Your task to perform on an android device: turn on the 12-hour format for clock Image 0: 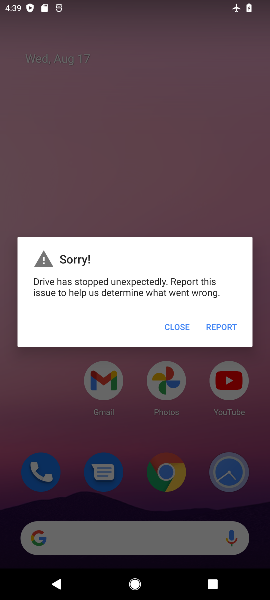
Step 0: click (175, 323)
Your task to perform on an android device: turn on the 12-hour format for clock Image 1: 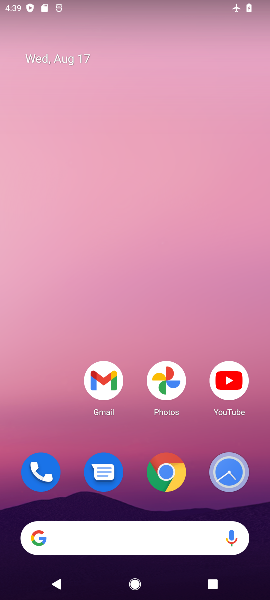
Step 1: click (227, 471)
Your task to perform on an android device: turn on the 12-hour format for clock Image 2: 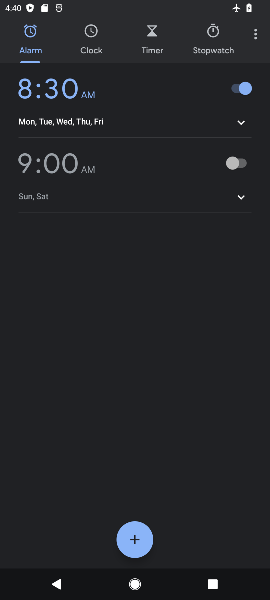
Step 2: click (259, 31)
Your task to perform on an android device: turn on the 12-hour format for clock Image 3: 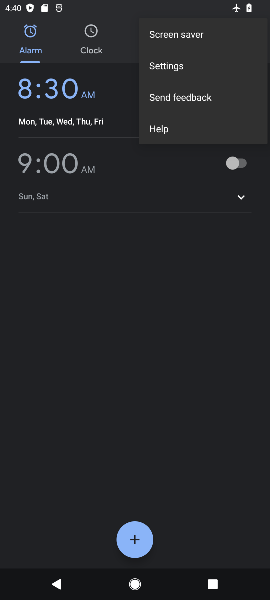
Step 3: click (223, 61)
Your task to perform on an android device: turn on the 12-hour format for clock Image 4: 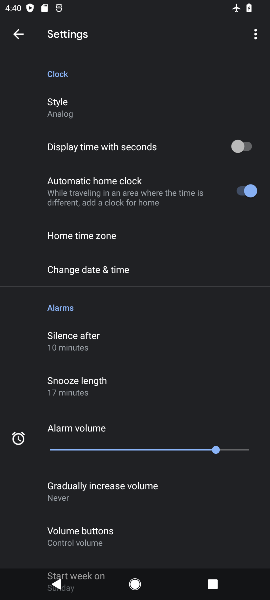
Step 4: click (170, 266)
Your task to perform on an android device: turn on the 12-hour format for clock Image 5: 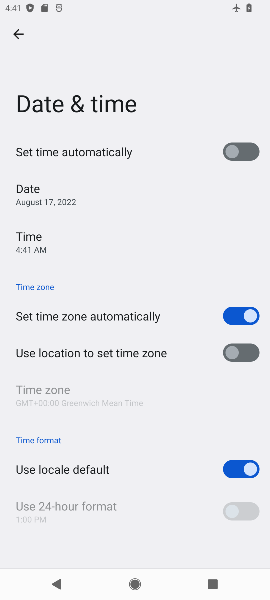
Step 5: task complete